Your task to perform on an android device: change keyboard looks Image 0: 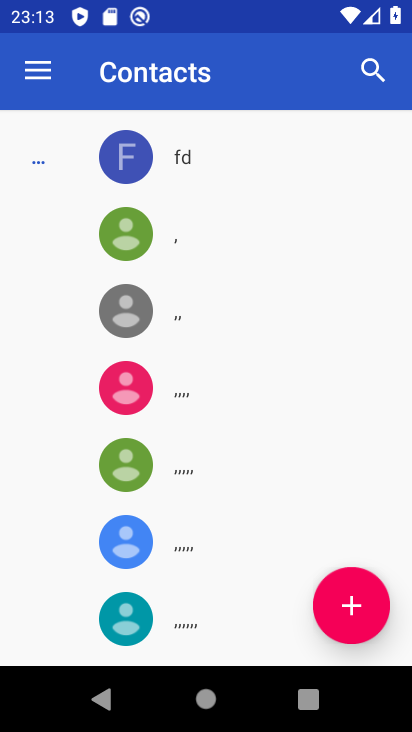
Step 0: press home button
Your task to perform on an android device: change keyboard looks Image 1: 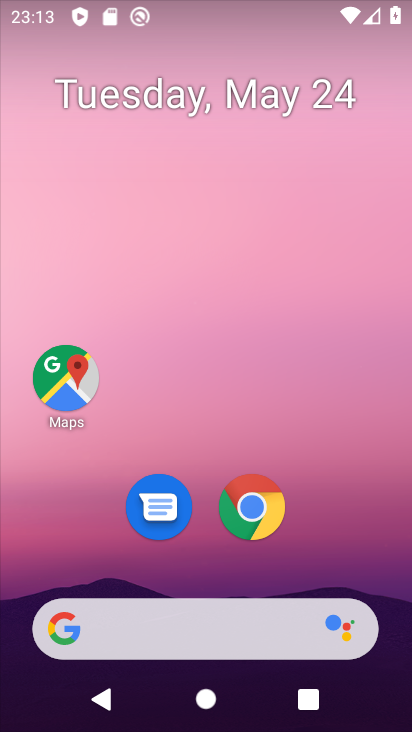
Step 1: drag from (347, 589) to (340, 43)
Your task to perform on an android device: change keyboard looks Image 2: 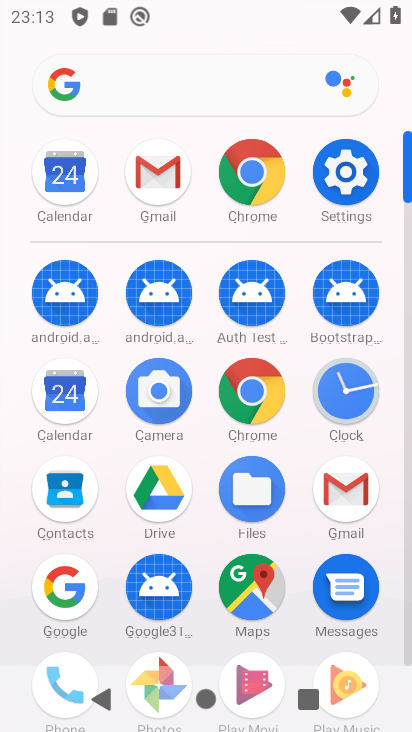
Step 2: click (339, 154)
Your task to perform on an android device: change keyboard looks Image 3: 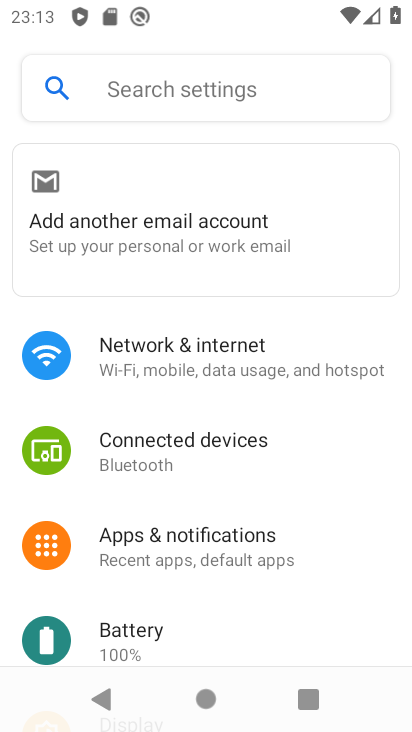
Step 3: drag from (222, 455) to (271, 94)
Your task to perform on an android device: change keyboard looks Image 4: 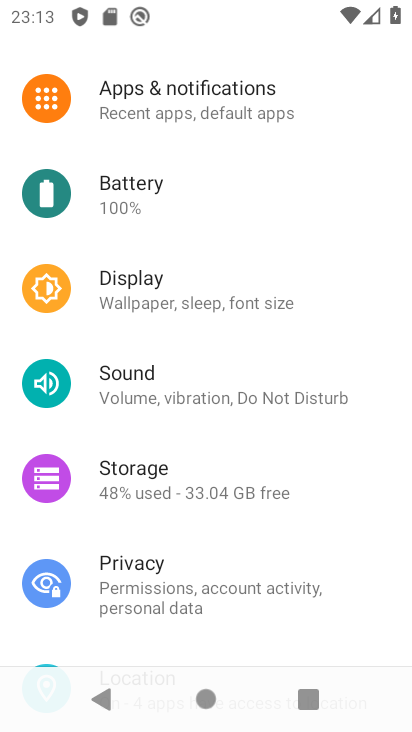
Step 4: drag from (309, 513) to (398, 141)
Your task to perform on an android device: change keyboard looks Image 5: 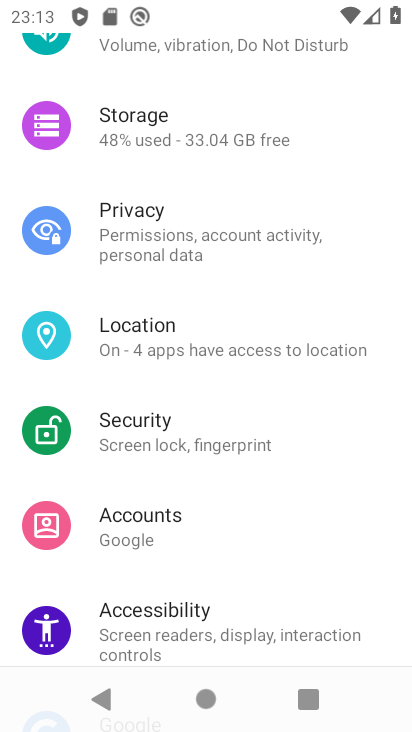
Step 5: drag from (342, 509) to (401, 116)
Your task to perform on an android device: change keyboard looks Image 6: 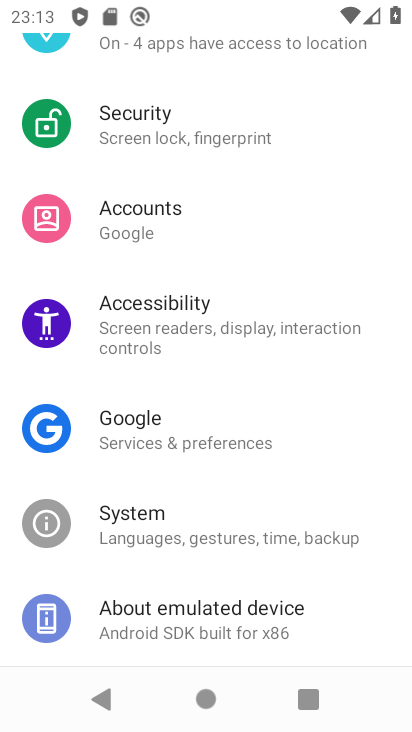
Step 6: click (335, 520)
Your task to perform on an android device: change keyboard looks Image 7: 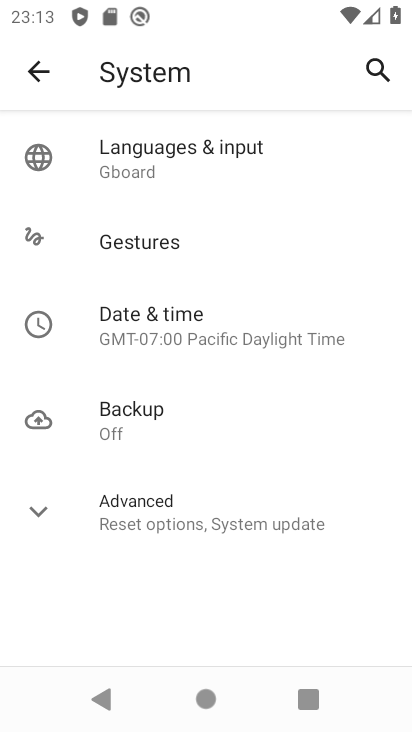
Step 7: click (210, 178)
Your task to perform on an android device: change keyboard looks Image 8: 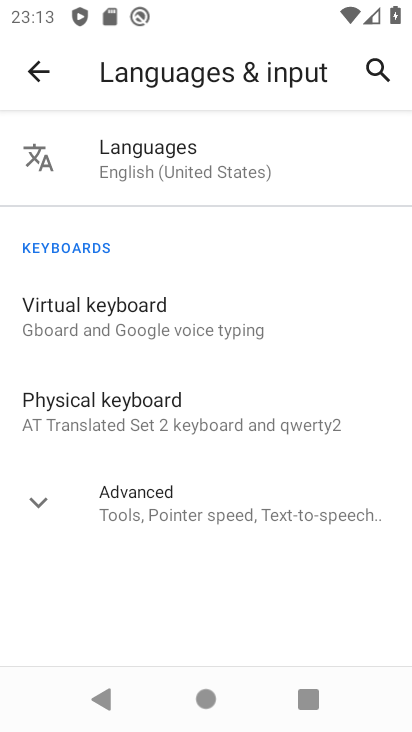
Step 8: click (246, 323)
Your task to perform on an android device: change keyboard looks Image 9: 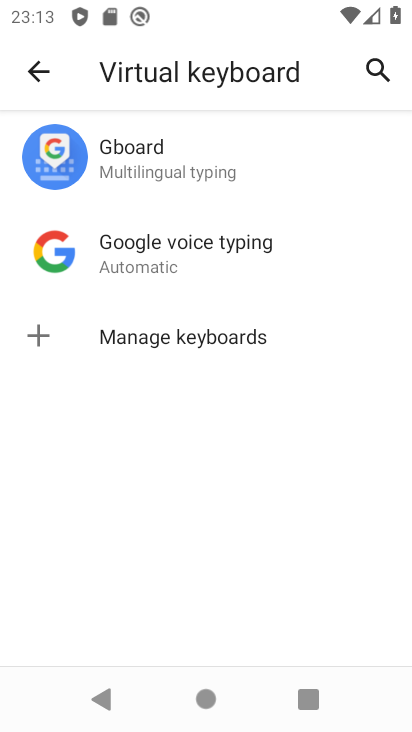
Step 9: click (238, 171)
Your task to perform on an android device: change keyboard looks Image 10: 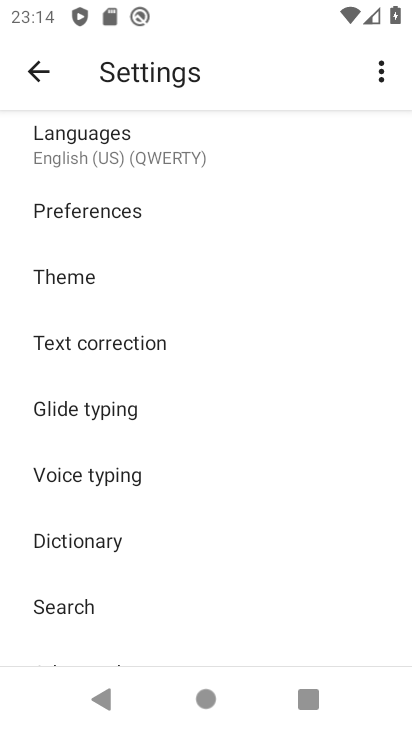
Step 10: click (135, 274)
Your task to perform on an android device: change keyboard looks Image 11: 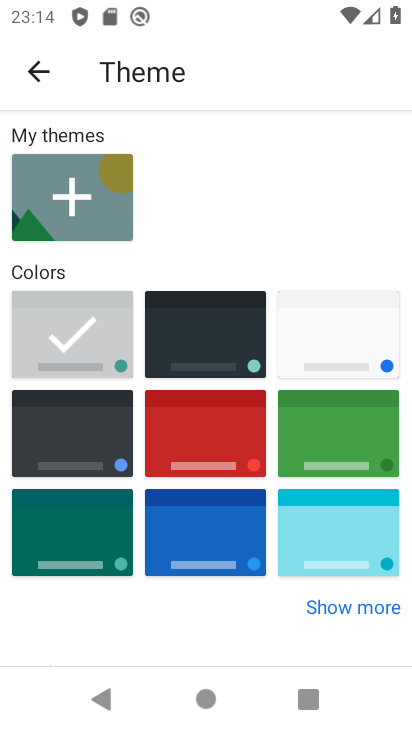
Step 11: click (225, 453)
Your task to perform on an android device: change keyboard looks Image 12: 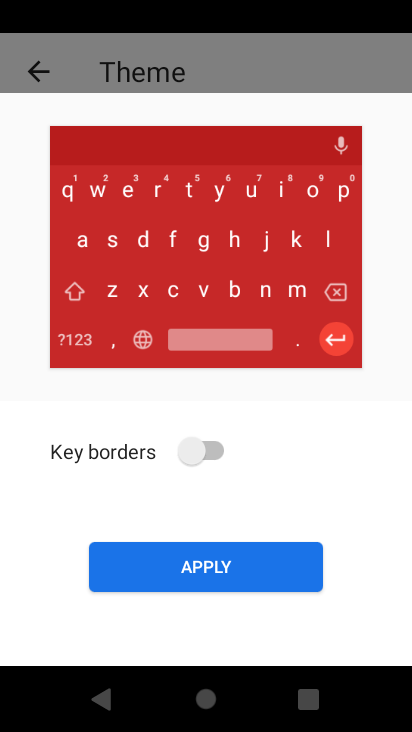
Step 12: click (252, 558)
Your task to perform on an android device: change keyboard looks Image 13: 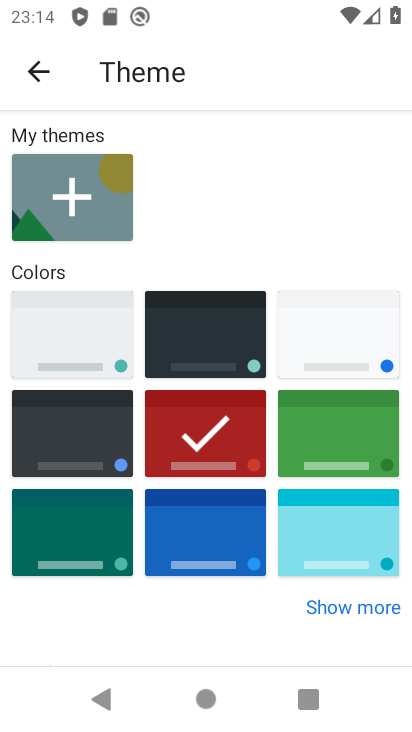
Step 13: task complete